Your task to perform on an android device: turn pop-ups on in chrome Image 0: 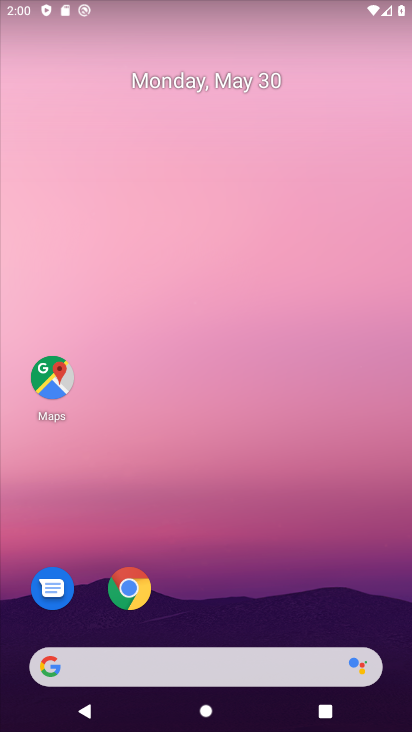
Step 0: drag from (236, 483) to (235, 310)
Your task to perform on an android device: turn pop-ups on in chrome Image 1: 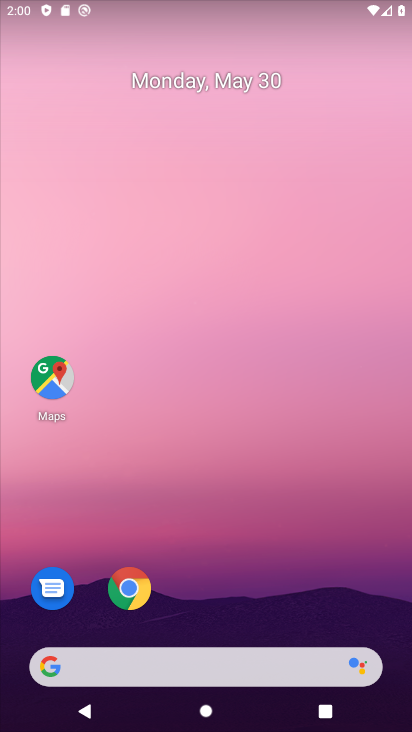
Step 1: drag from (246, 606) to (250, 65)
Your task to perform on an android device: turn pop-ups on in chrome Image 2: 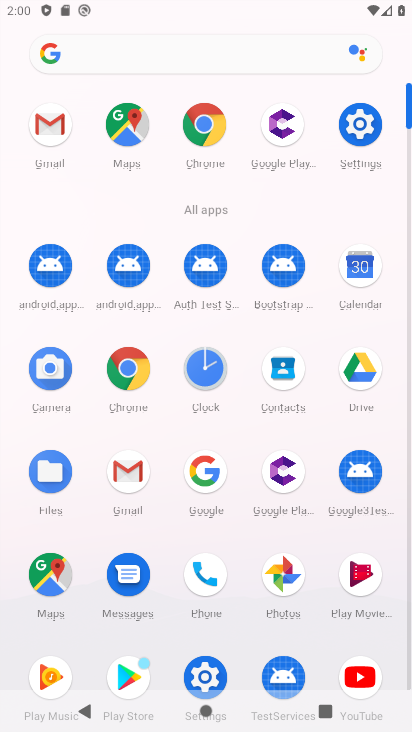
Step 2: click (132, 366)
Your task to perform on an android device: turn pop-ups on in chrome Image 3: 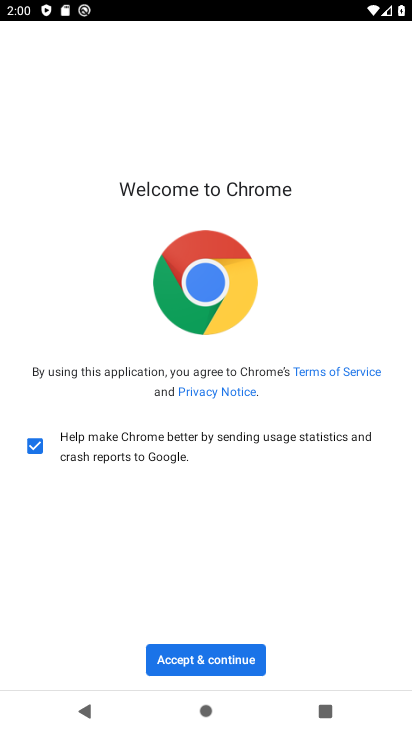
Step 3: click (219, 655)
Your task to perform on an android device: turn pop-ups on in chrome Image 4: 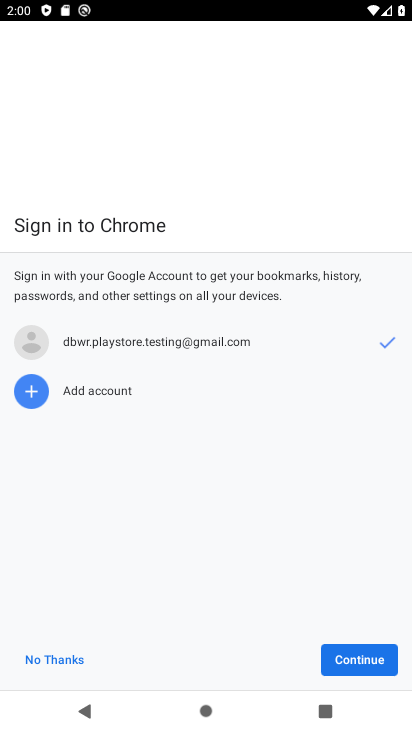
Step 4: click (361, 647)
Your task to perform on an android device: turn pop-ups on in chrome Image 5: 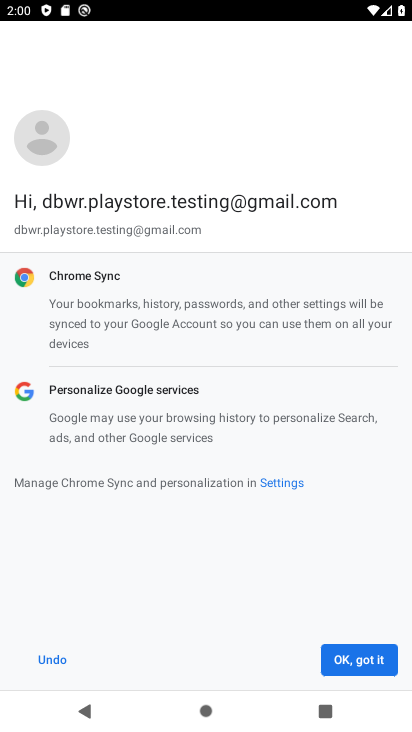
Step 5: click (361, 647)
Your task to perform on an android device: turn pop-ups on in chrome Image 6: 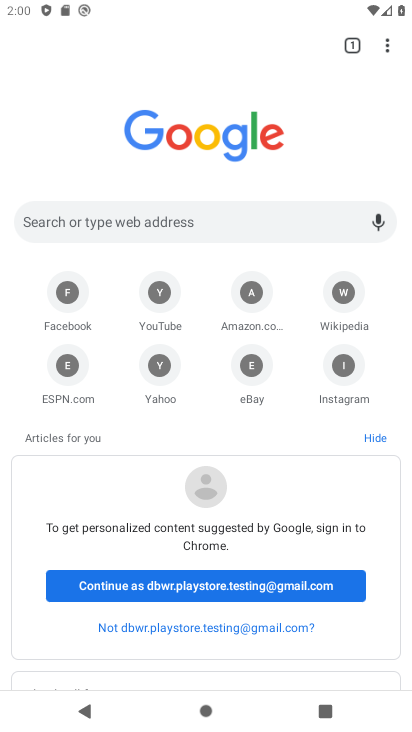
Step 6: click (385, 30)
Your task to perform on an android device: turn pop-ups on in chrome Image 7: 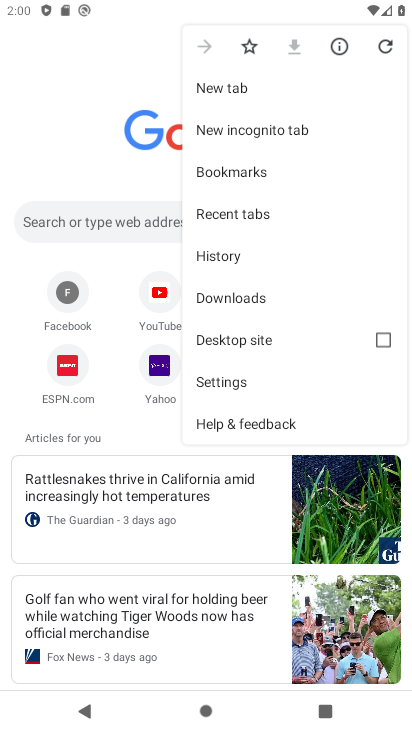
Step 7: click (203, 382)
Your task to perform on an android device: turn pop-ups on in chrome Image 8: 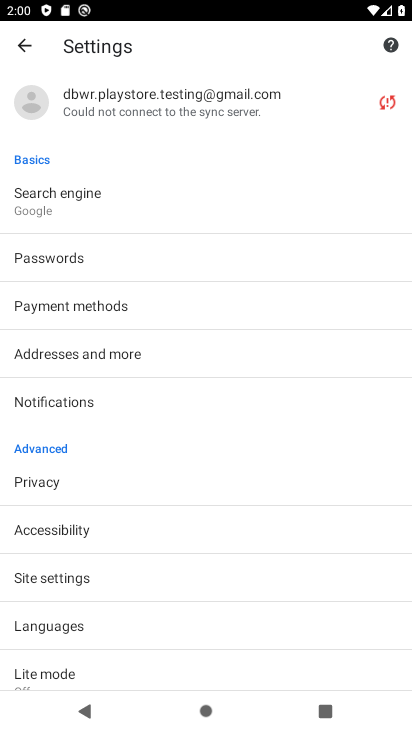
Step 8: drag from (153, 545) to (179, 230)
Your task to perform on an android device: turn pop-ups on in chrome Image 9: 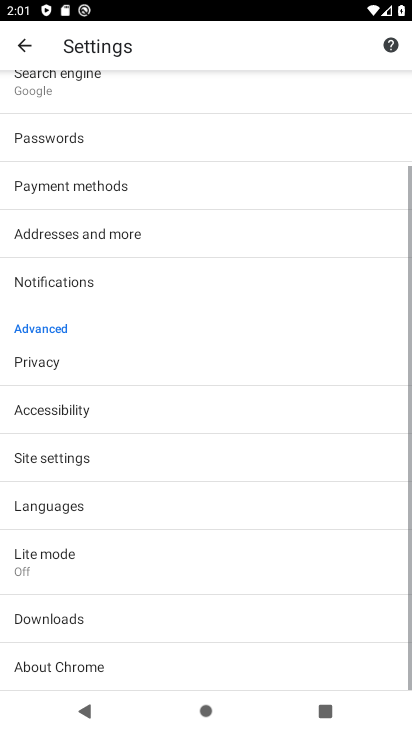
Step 9: drag from (107, 610) to (162, 290)
Your task to perform on an android device: turn pop-ups on in chrome Image 10: 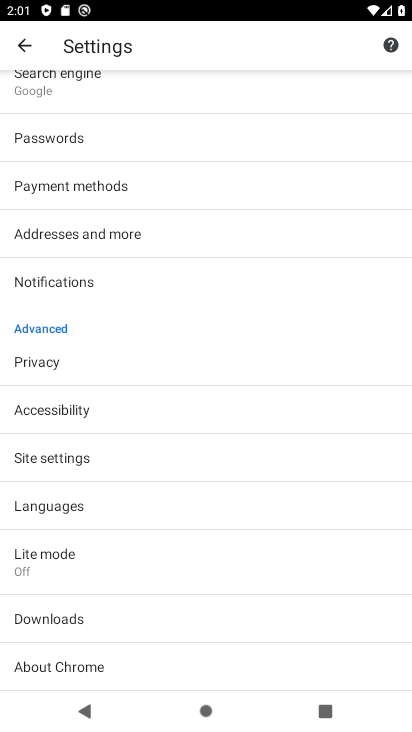
Step 10: click (81, 456)
Your task to perform on an android device: turn pop-ups on in chrome Image 11: 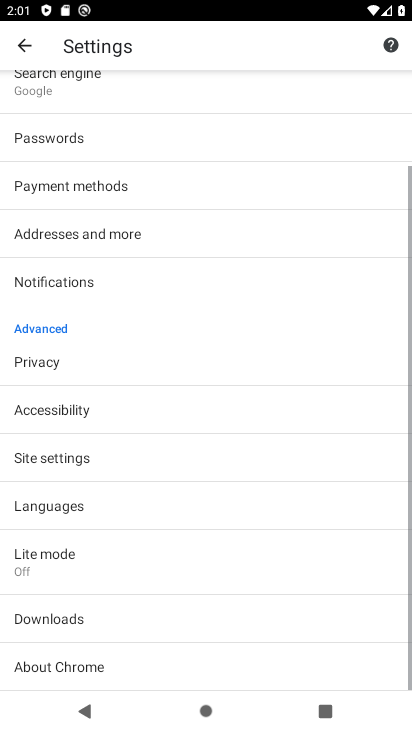
Step 11: click (81, 456)
Your task to perform on an android device: turn pop-ups on in chrome Image 12: 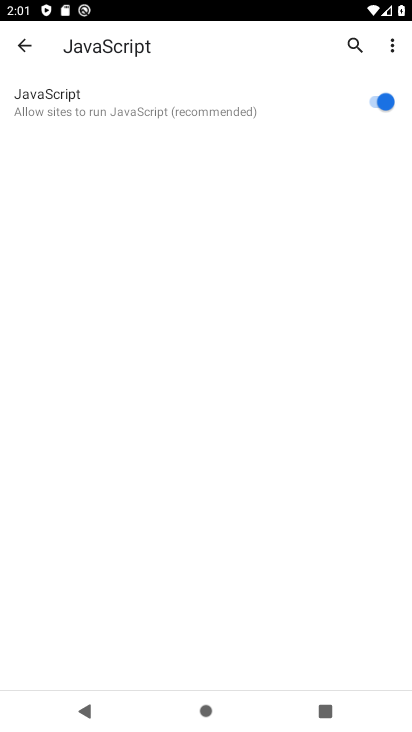
Step 12: click (23, 49)
Your task to perform on an android device: turn pop-ups on in chrome Image 13: 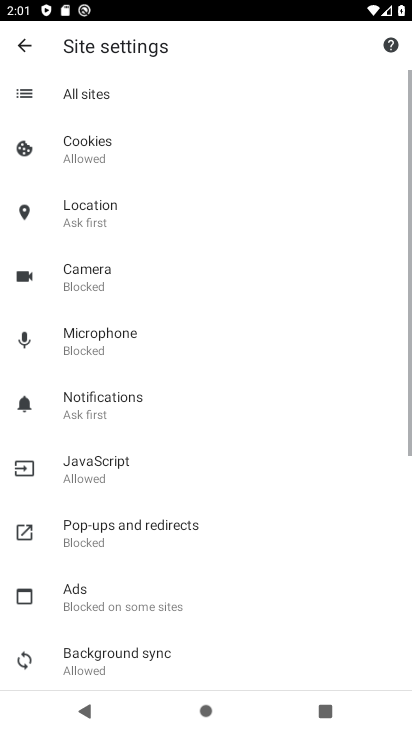
Step 13: click (121, 465)
Your task to perform on an android device: turn pop-ups on in chrome Image 14: 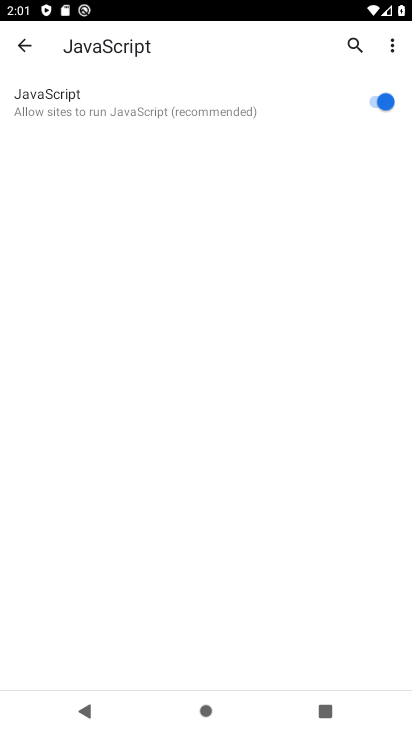
Step 14: task complete